Your task to perform on an android device: open device folders in google photos Image 0: 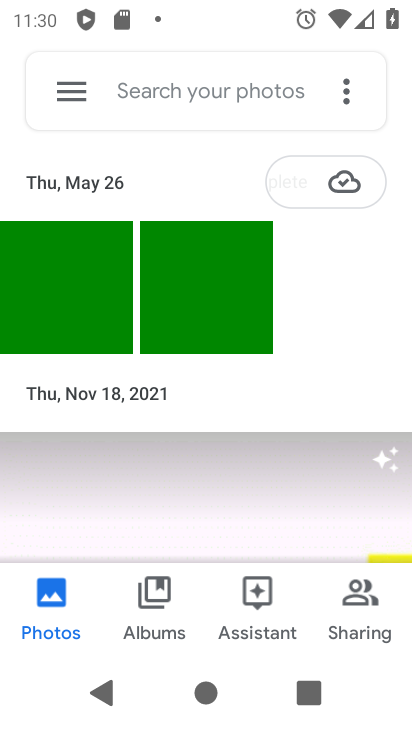
Step 0: press home button
Your task to perform on an android device: open device folders in google photos Image 1: 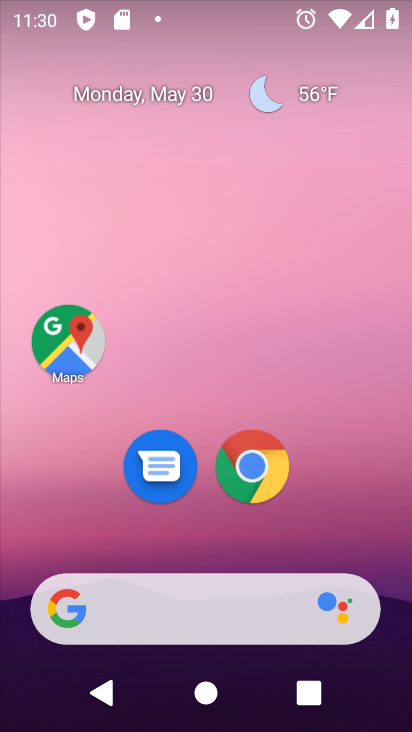
Step 1: drag from (219, 582) to (154, 116)
Your task to perform on an android device: open device folders in google photos Image 2: 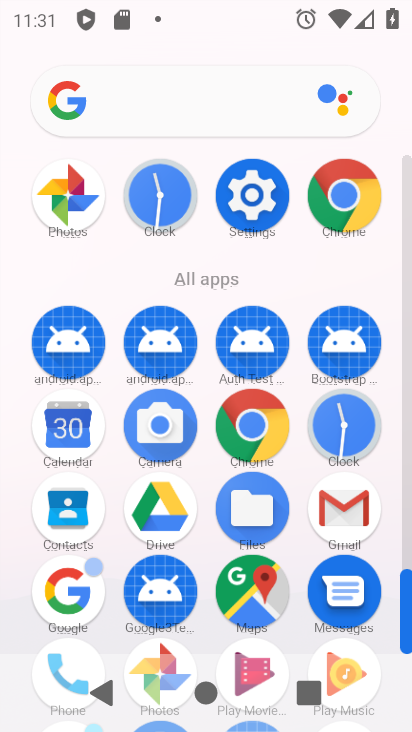
Step 2: click (72, 181)
Your task to perform on an android device: open device folders in google photos Image 3: 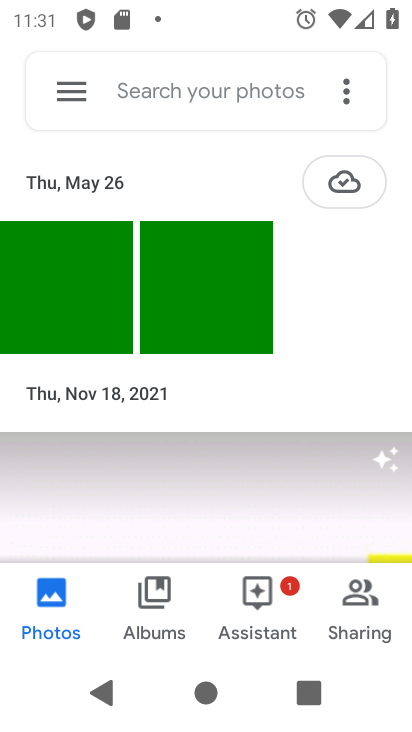
Step 3: click (149, 580)
Your task to perform on an android device: open device folders in google photos Image 4: 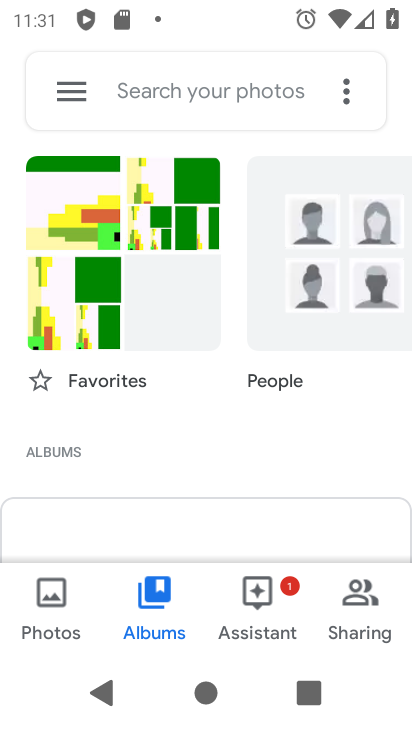
Step 4: task complete